Your task to perform on an android device: Do I have any events this weekend? Image 0: 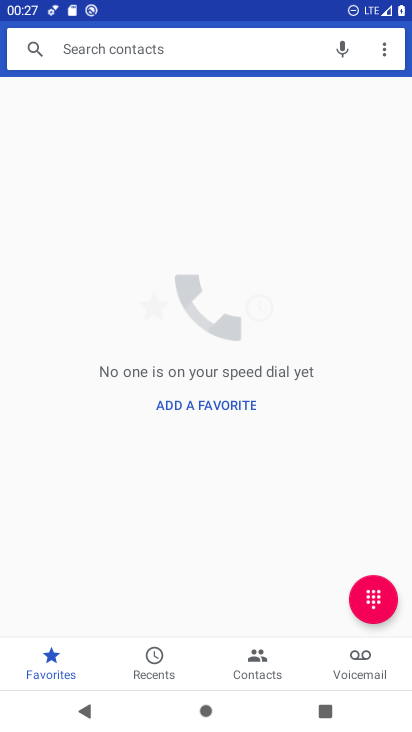
Step 0: press home button
Your task to perform on an android device: Do I have any events this weekend? Image 1: 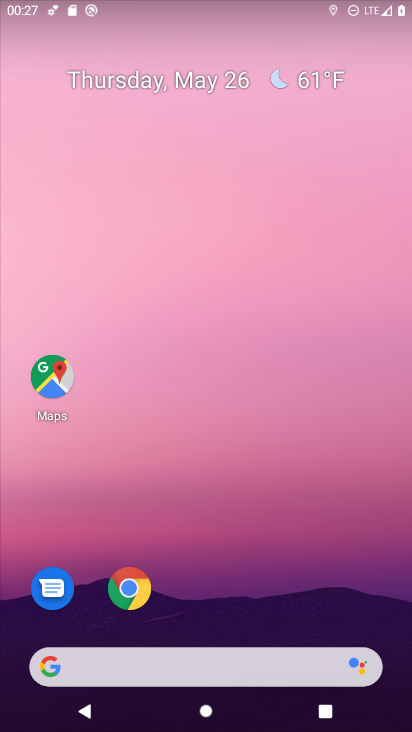
Step 1: drag from (219, 543) to (166, 52)
Your task to perform on an android device: Do I have any events this weekend? Image 2: 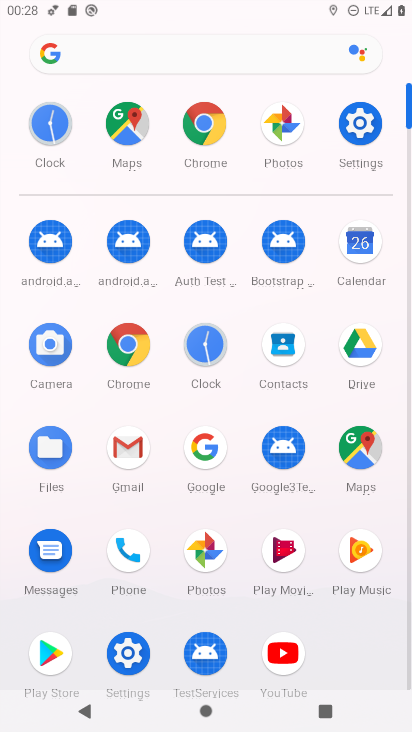
Step 2: click (366, 237)
Your task to perform on an android device: Do I have any events this weekend? Image 3: 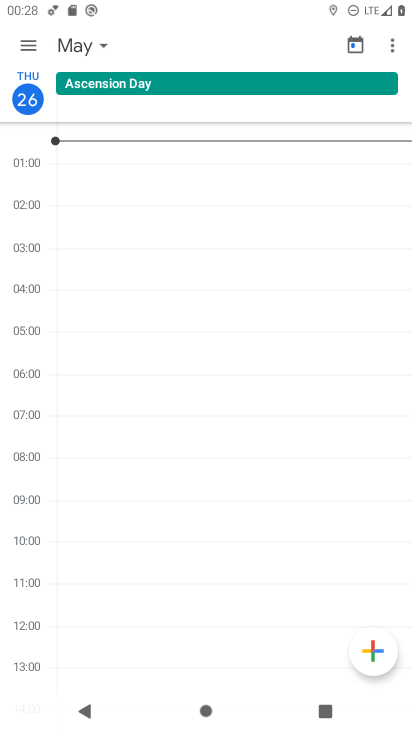
Step 3: click (21, 42)
Your task to perform on an android device: Do I have any events this weekend? Image 4: 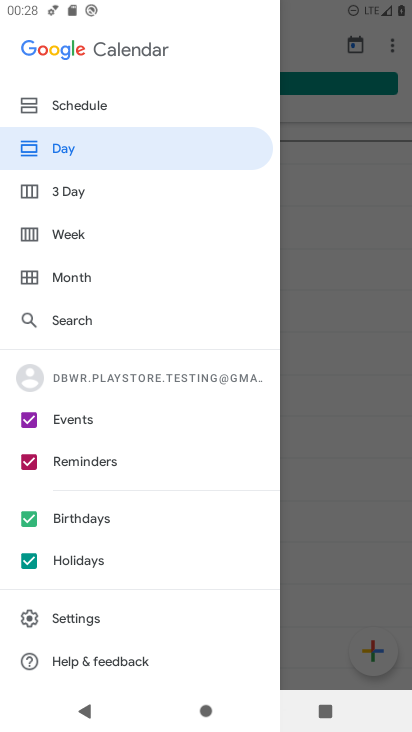
Step 4: click (69, 229)
Your task to perform on an android device: Do I have any events this weekend? Image 5: 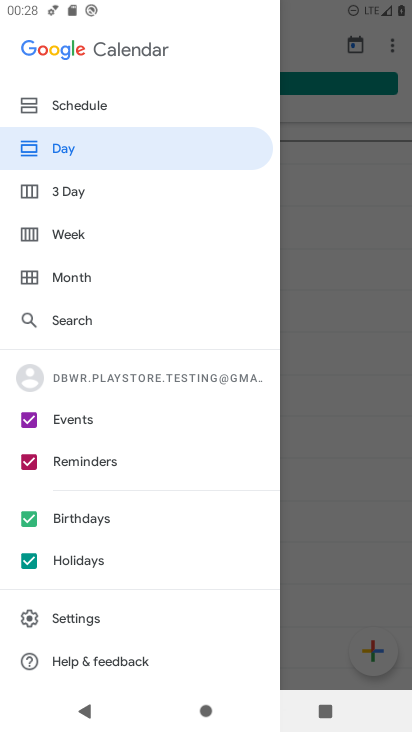
Step 5: click (71, 239)
Your task to perform on an android device: Do I have any events this weekend? Image 6: 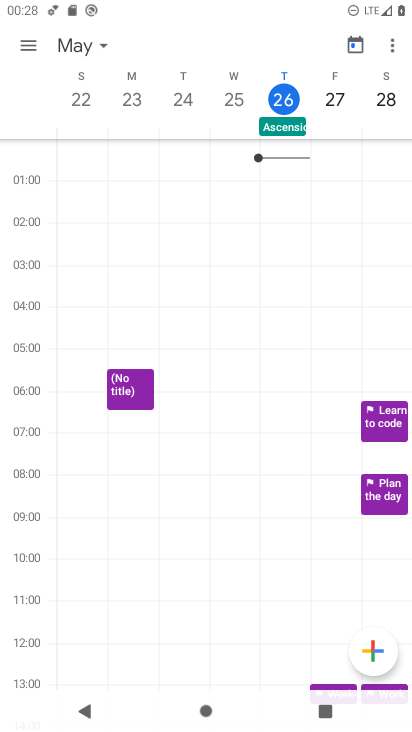
Step 6: task complete